Your task to perform on an android device: change your default location settings in chrome Image 0: 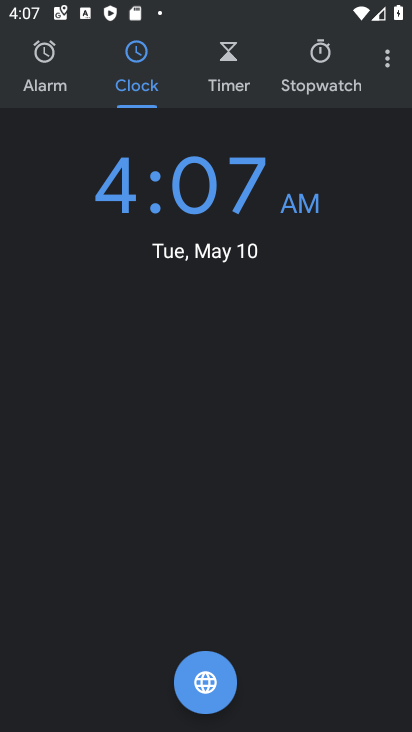
Step 0: press home button
Your task to perform on an android device: change your default location settings in chrome Image 1: 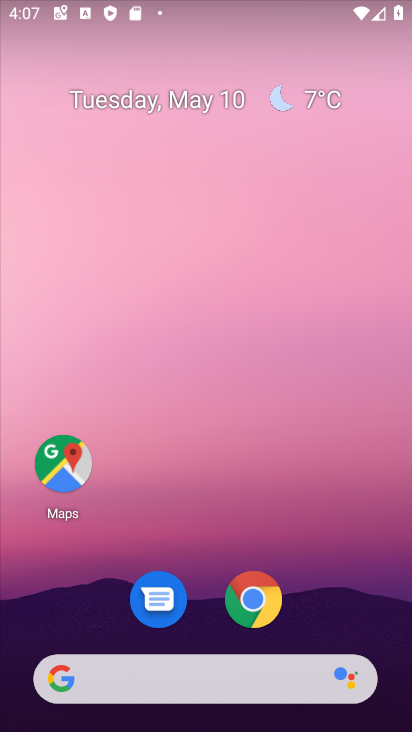
Step 1: click (263, 616)
Your task to perform on an android device: change your default location settings in chrome Image 2: 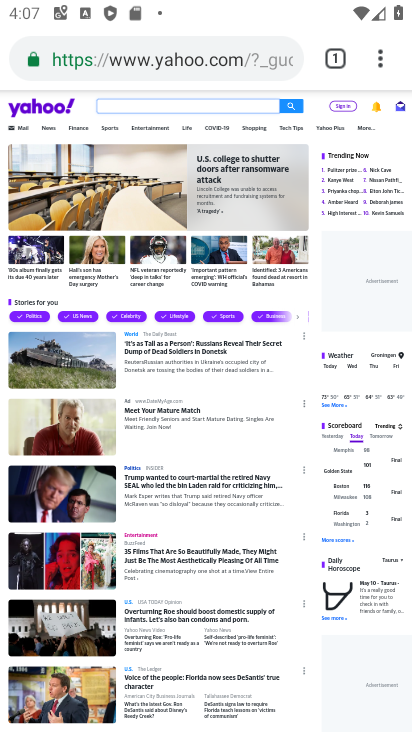
Step 2: click (374, 55)
Your task to perform on an android device: change your default location settings in chrome Image 3: 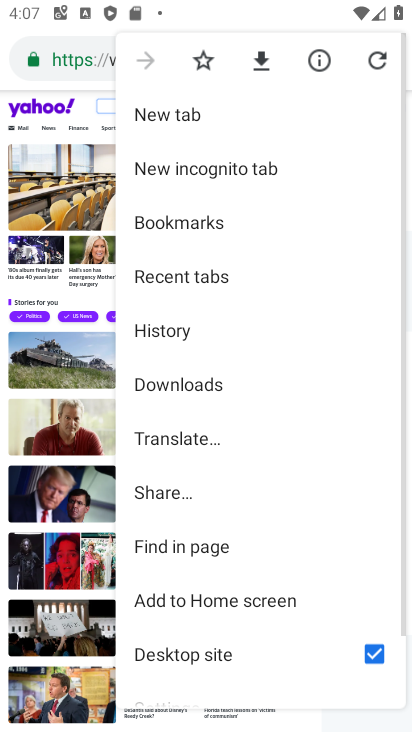
Step 3: drag from (244, 563) to (305, 150)
Your task to perform on an android device: change your default location settings in chrome Image 4: 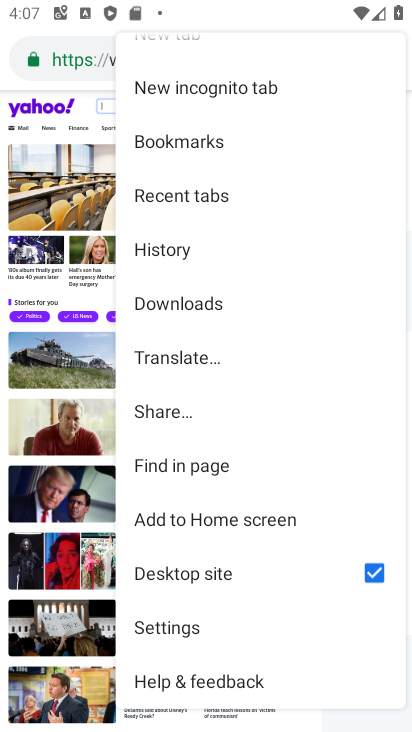
Step 4: click (204, 625)
Your task to perform on an android device: change your default location settings in chrome Image 5: 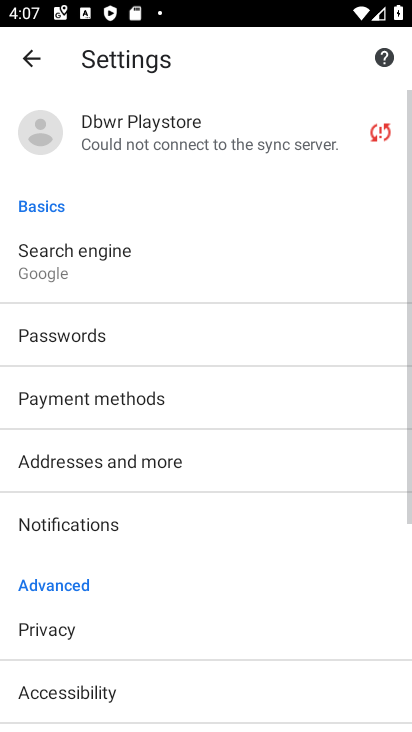
Step 5: drag from (204, 625) to (333, 97)
Your task to perform on an android device: change your default location settings in chrome Image 6: 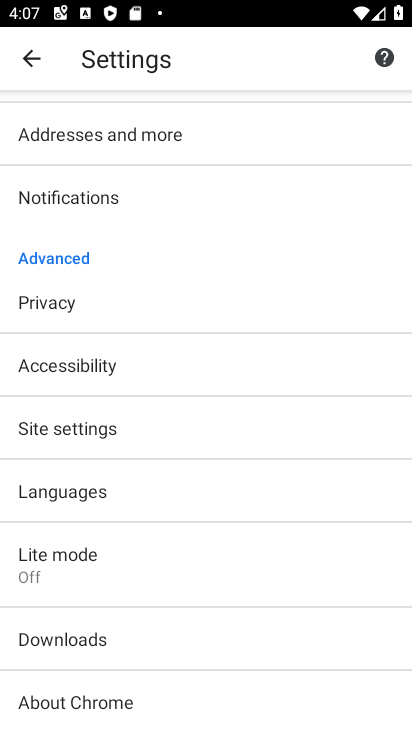
Step 6: click (157, 432)
Your task to perform on an android device: change your default location settings in chrome Image 7: 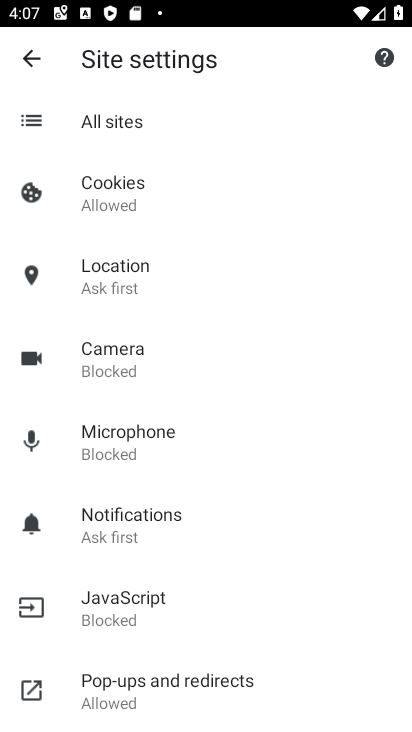
Step 7: click (174, 290)
Your task to perform on an android device: change your default location settings in chrome Image 8: 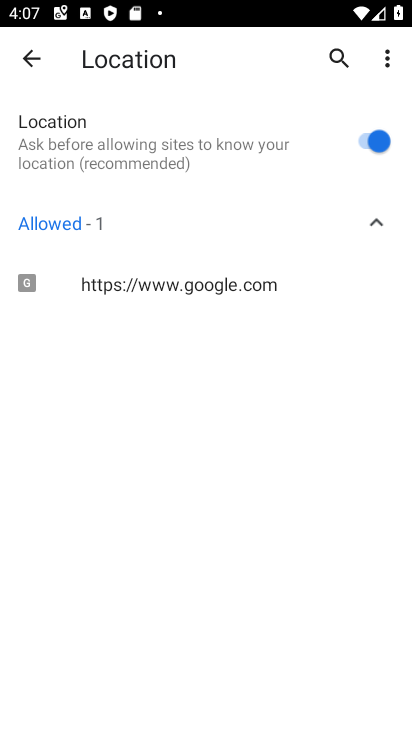
Step 8: click (363, 144)
Your task to perform on an android device: change your default location settings in chrome Image 9: 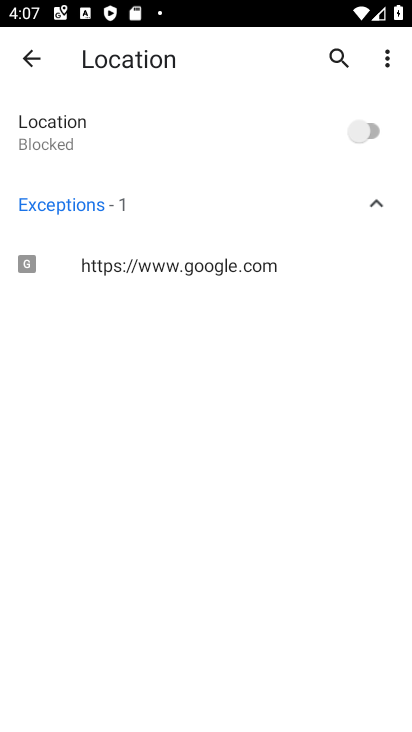
Step 9: task complete